Your task to perform on an android device: change the clock display to digital Image 0: 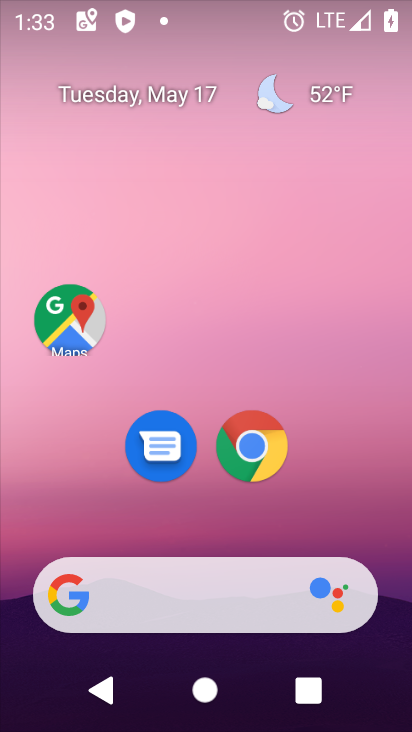
Step 0: drag from (174, 519) to (177, 249)
Your task to perform on an android device: change the clock display to digital Image 1: 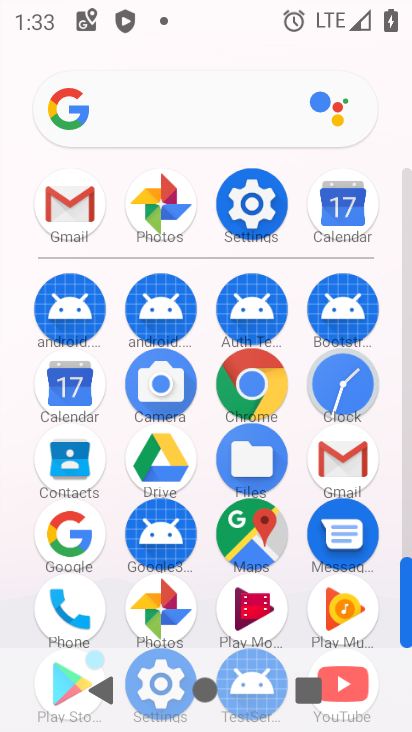
Step 1: click (347, 388)
Your task to perform on an android device: change the clock display to digital Image 2: 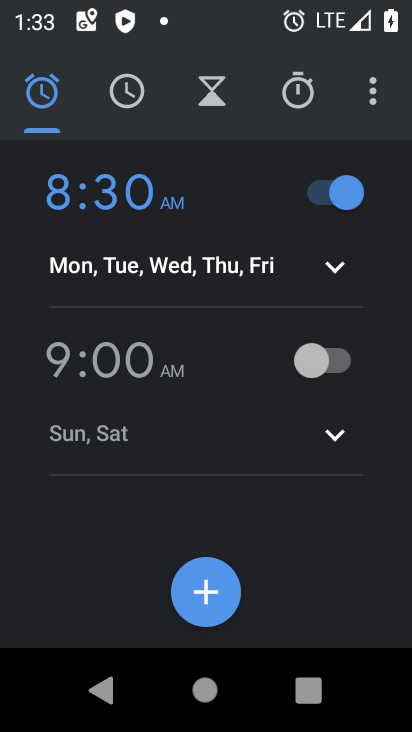
Step 2: click (377, 95)
Your task to perform on an android device: change the clock display to digital Image 3: 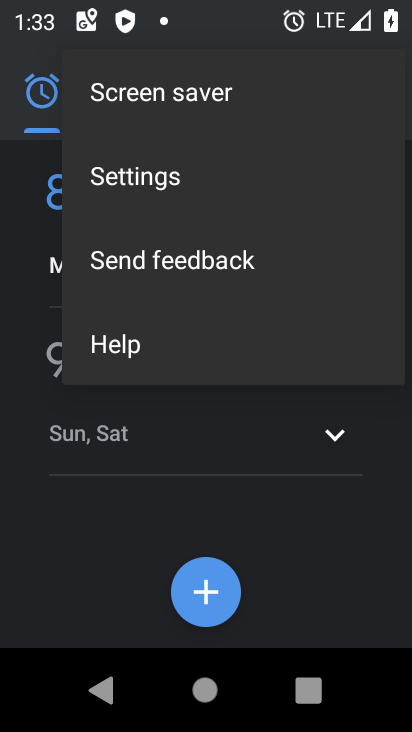
Step 3: click (141, 172)
Your task to perform on an android device: change the clock display to digital Image 4: 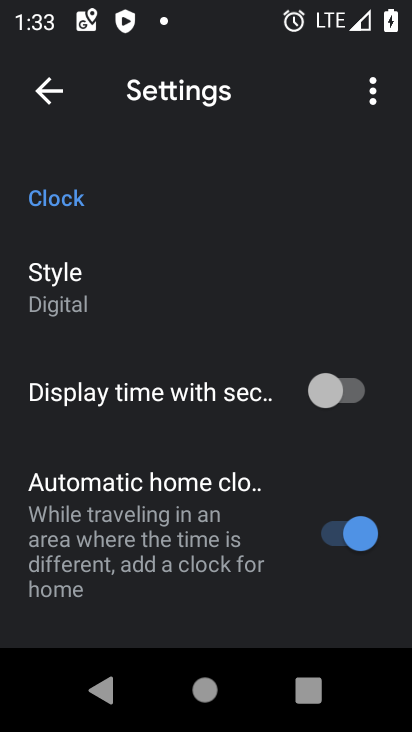
Step 4: click (78, 284)
Your task to perform on an android device: change the clock display to digital Image 5: 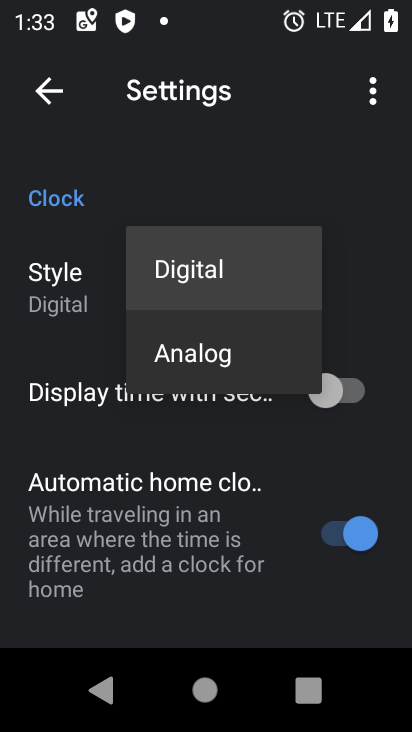
Step 5: task complete